Your task to perform on an android device: toggle translation in the chrome app Image 0: 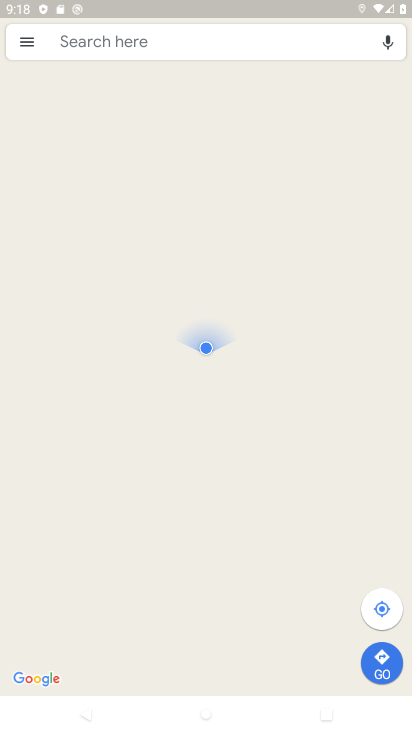
Step 0: press back button
Your task to perform on an android device: toggle translation in the chrome app Image 1: 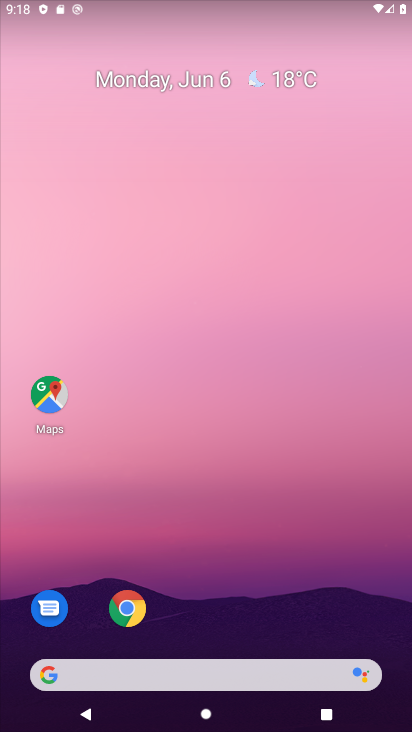
Step 1: click (128, 607)
Your task to perform on an android device: toggle translation in the chrome app Image 2: 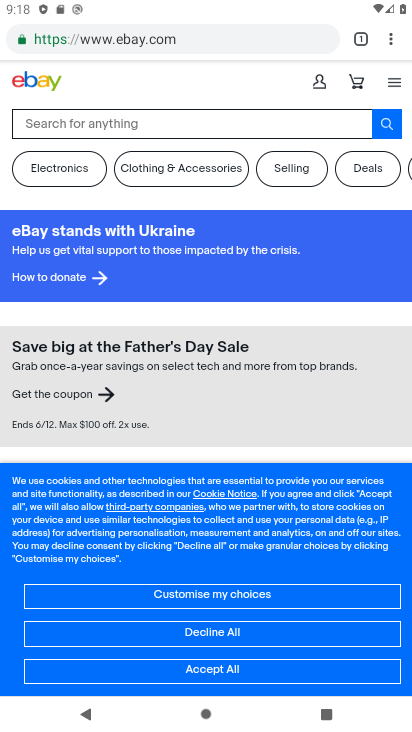
Step 2: click (392, 43)
Your task to perform on an android device: toggle translation in the chrome app Image 3: 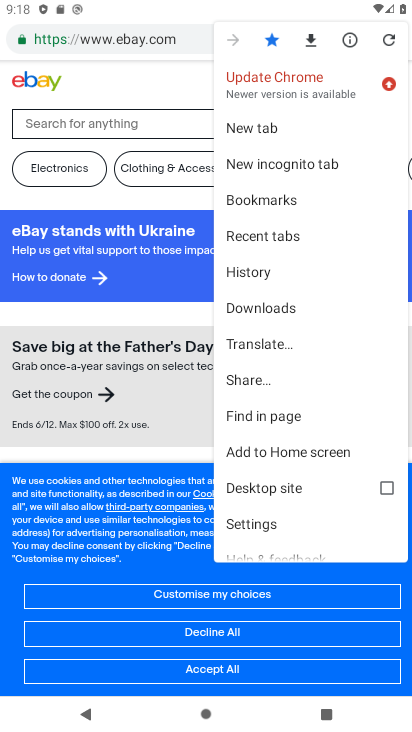
Step 3: click (252, 524)
Your task to perform on an android device: toggle translation in the chrome app Image 4: 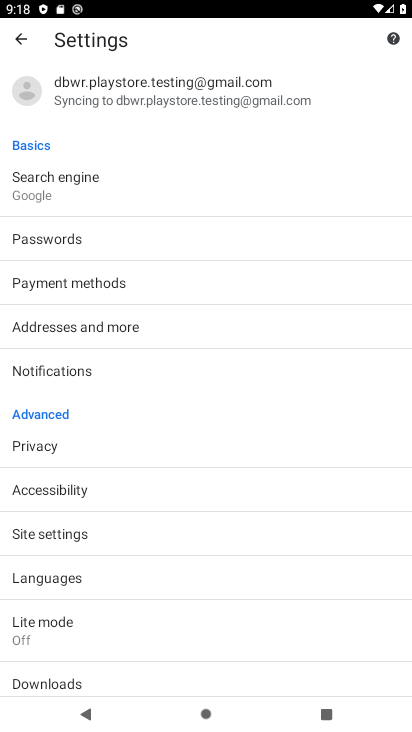
Step 4: click (60, 579)
Your task to perform on an android device: toggle translation in the chrome app Image 5: 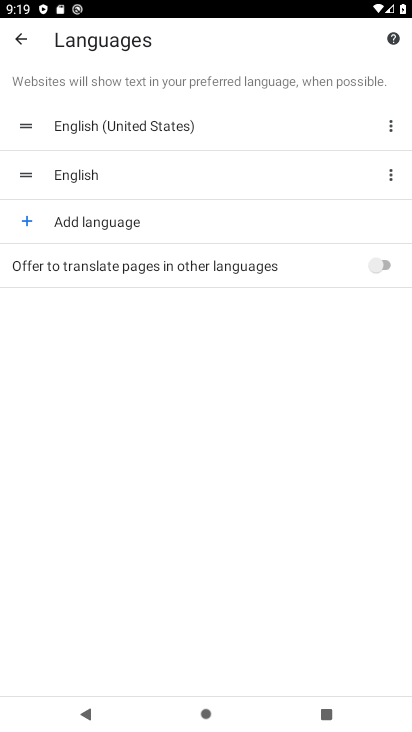
Step 5: click (389, 266)
Your task to perform on an android device: toggle translation in the chrome app Image 6: 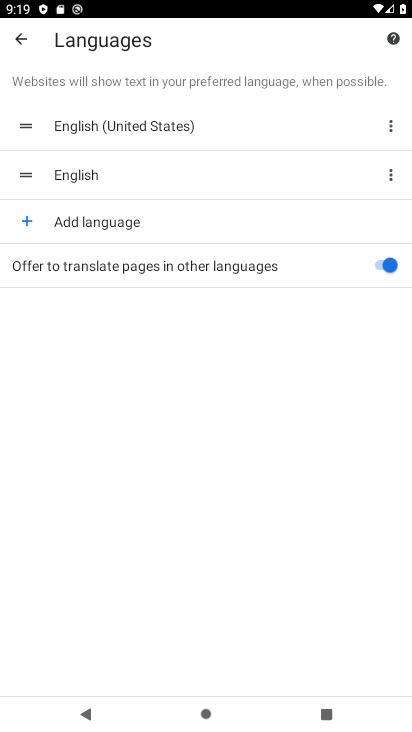
Step 6: task complete